Your task to perform on an android device: What's US dollar exchange rate against the Chinese Yuan? Image 0: 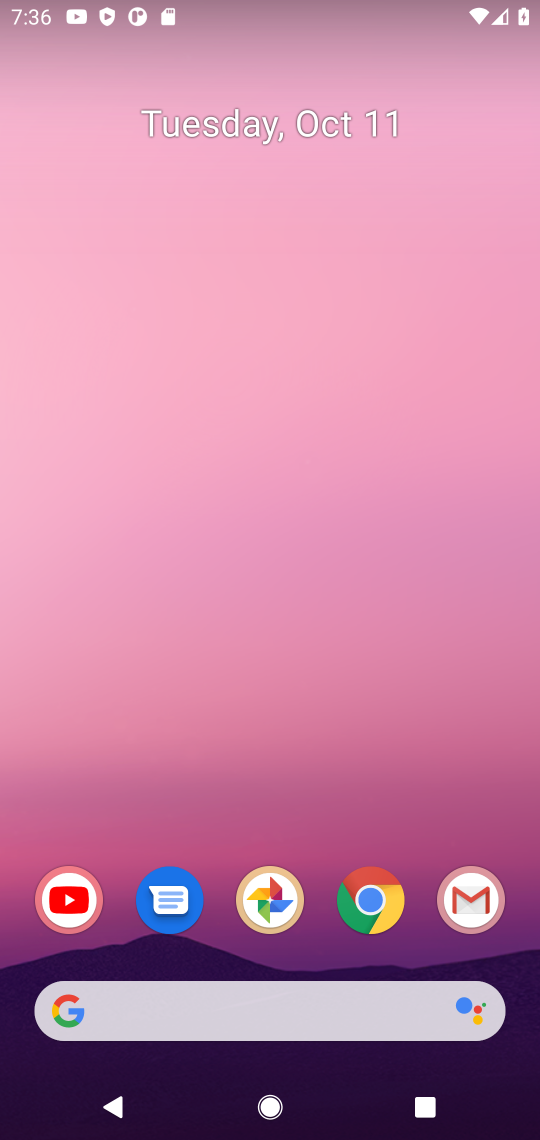
Step 0: click (363, 894)
Your task to perform on an android device: What's US dollar exchange rate against the Chinese Yuan? Image 1: 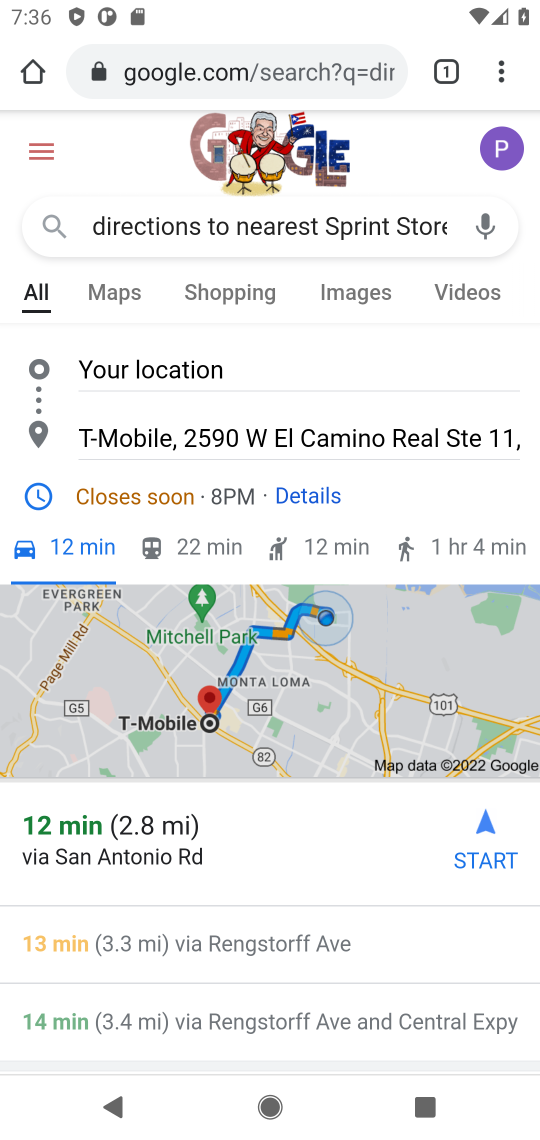
Step 1: click (276, 84)
Your task to perform on an android device: What's US dollar exchange rate against the Chinese Yuan? Image 2: 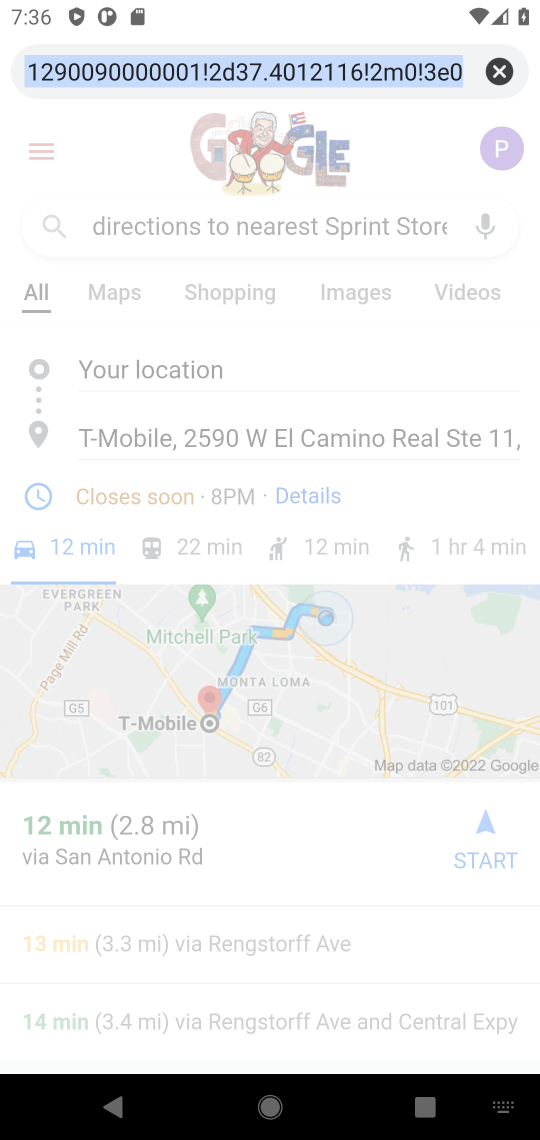
Step 2: type " US dollar exchange rate against the Chinese Yuan?"
Your task to perform on an android device: What's US dollar exchange rate against the Chinese Yuan? Image 3: 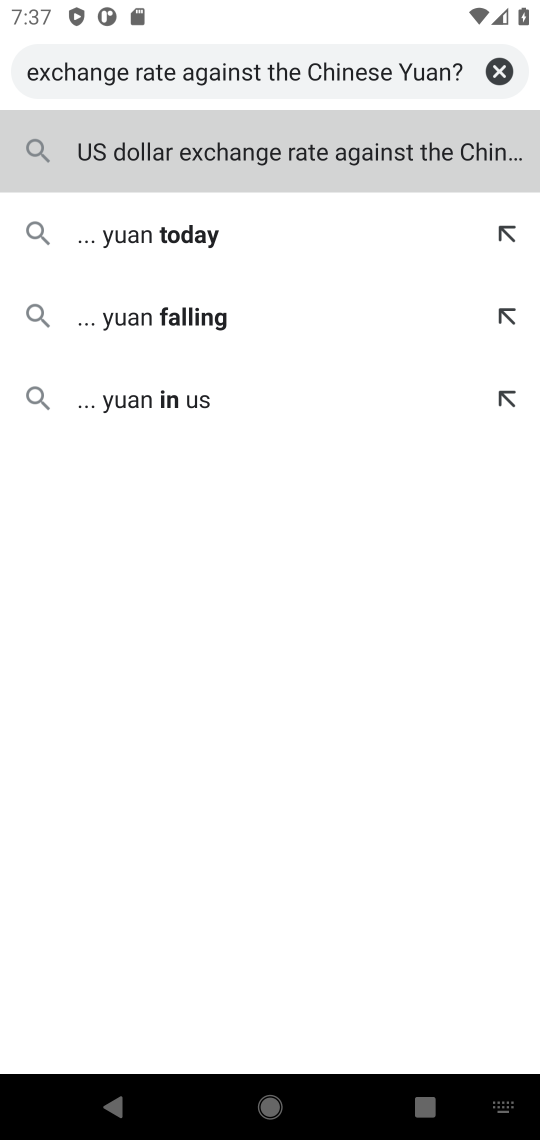
Step 3: click (415, 156)
Your task to perform on an android device: What's US dollar exchange rate against the Chinese Yuan? Image 4: 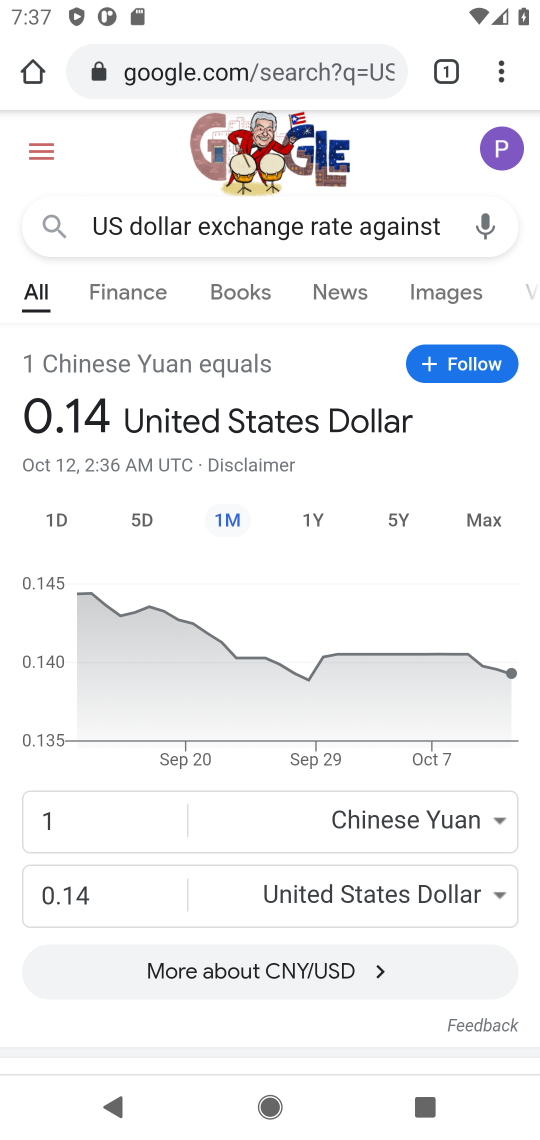
Step 4: task complete